Your task to perform on an android device: turn pop-ups off in chrome Image 0: 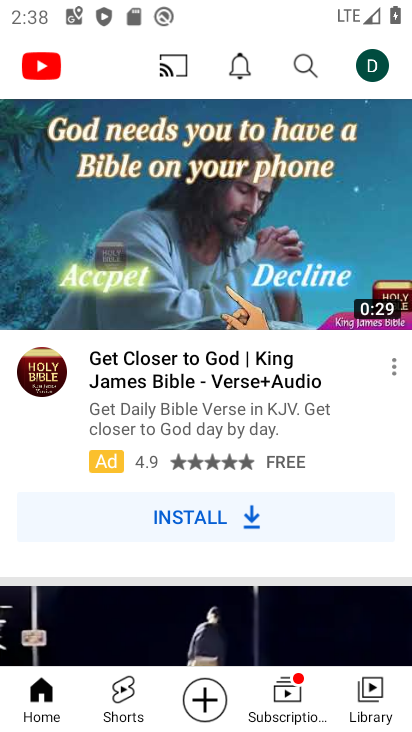
Step 0: press home button
Your task to perform on an android device: turn pop-ups off in chrome Image 1: 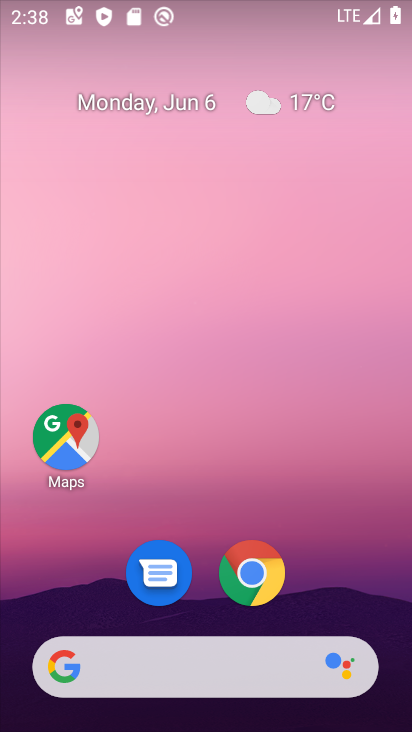
Step 1: drag from (344, 584) to (349, 119)
Your task to perform on an android device: turn pop-ups off in chrome Image 2: 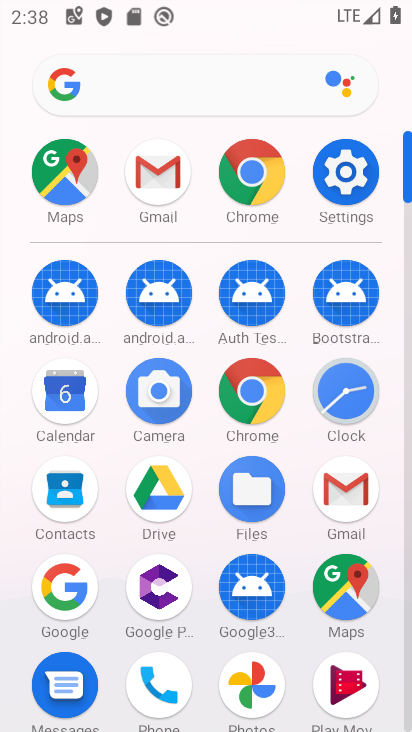
Step 2: click (261, 397)
Your task to perform on an android device: turn pop-ups off in chrome Image 3: 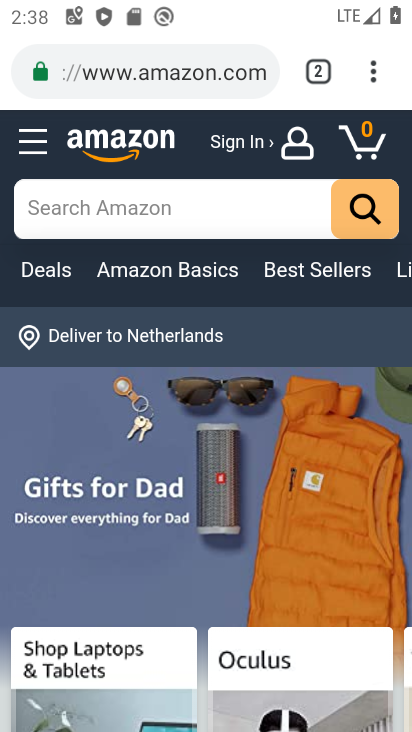
Step 3: click (373, 85)
Your task to perform on an android device: turn pop-ups off in chrome Image 4: 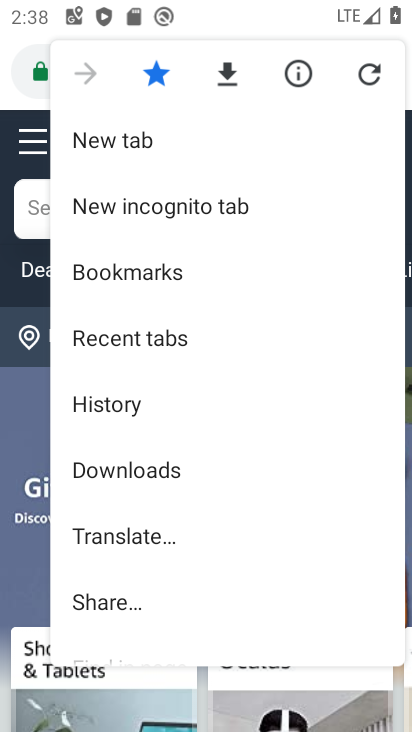
Step 4: drag from (355, 505) to (371, 310)
Your task to perform on an android device: turn pop-ups off in chrome Image 5: 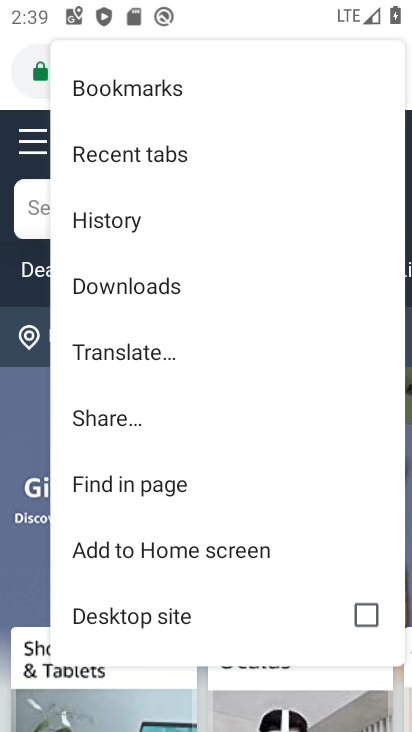
Step 5: drag from (313, 571) to (335, 308)
Your task to perform on an android device: turn pop-ups off in chrome Image 6: 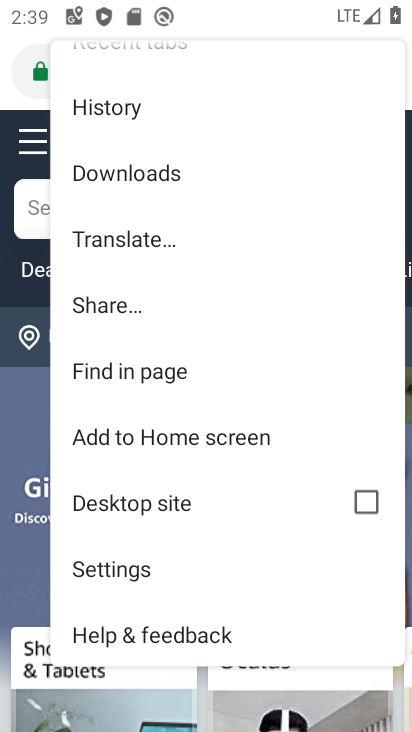
Step 6: click (182, 570)
Your task to perform on an android device: turn pop-ups off in chrome Image 7: 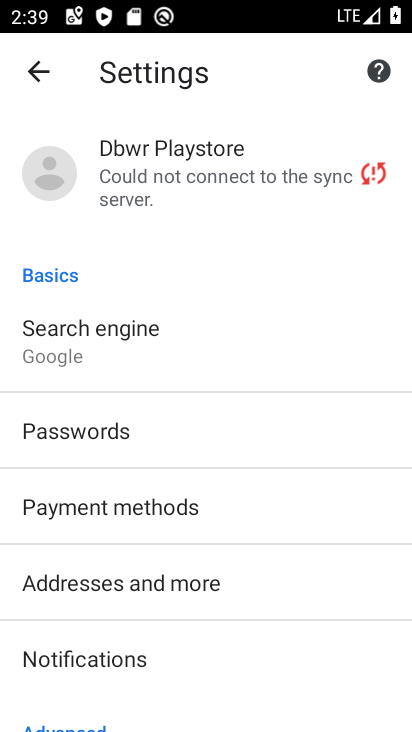
Step 7: drag from (308, 566) to (353, 423)
Your task to perform on an android device: turn pop-ups off in chrome Image 8: 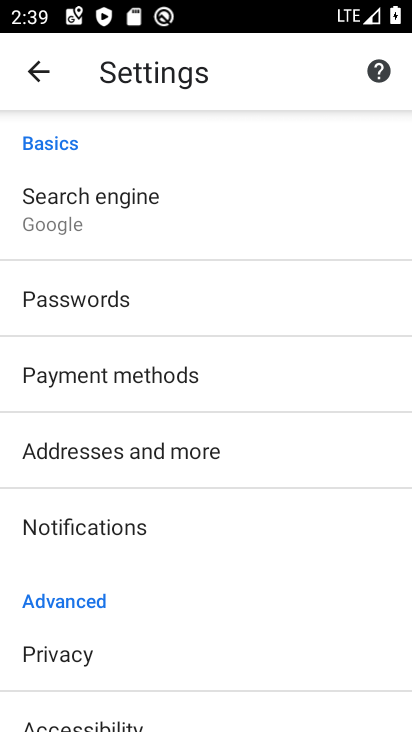
Step 8: drag from (340, 555) to (338, 406)
Your task to perform on an android device: turn pop-ups off in chrome Image 9: 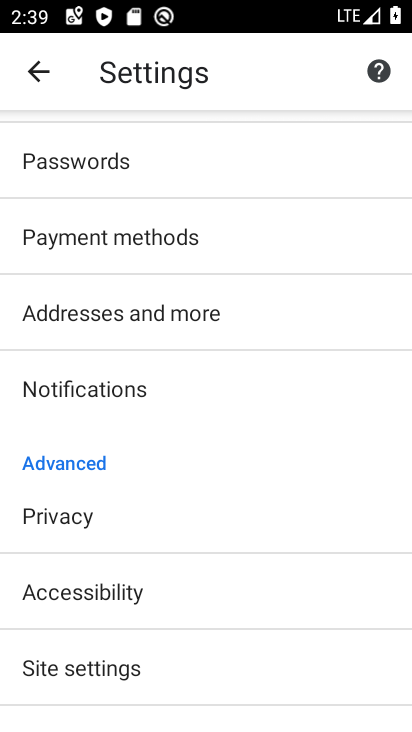
Step 9: drag from (290, 605) to (301, 374)
Your task to perform on an android device: turn pop-ups off in chrome Image 10: 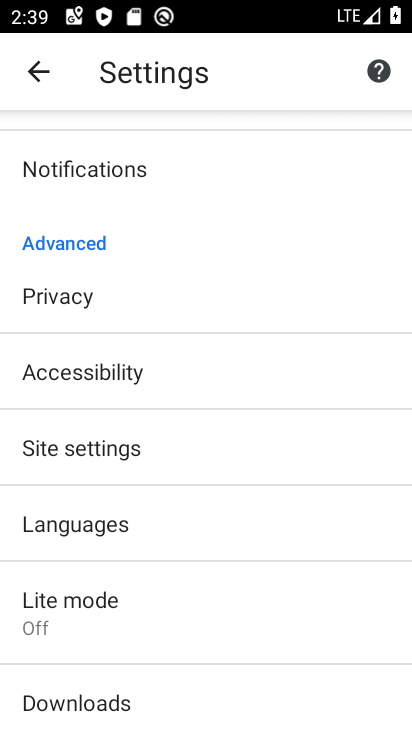
Step 10: click (272, 438)
Your task to perform on an android device: turn pop-ups off in chrome Image 11: 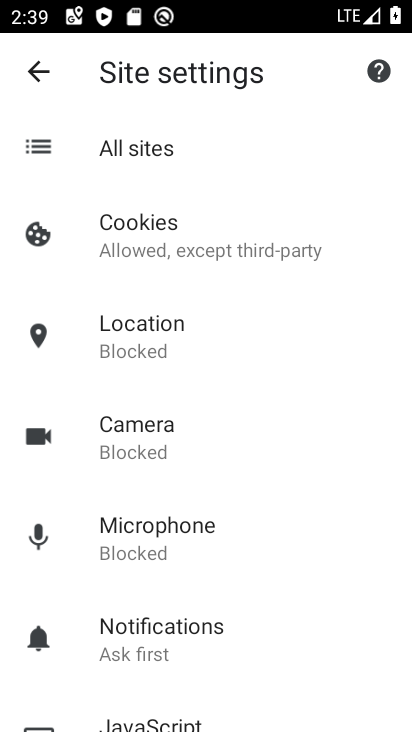
Step 11: drag from (311, 465) to (327, 335)
Your task to perform on an android device: turn pop-ups off in chrome Image 12: 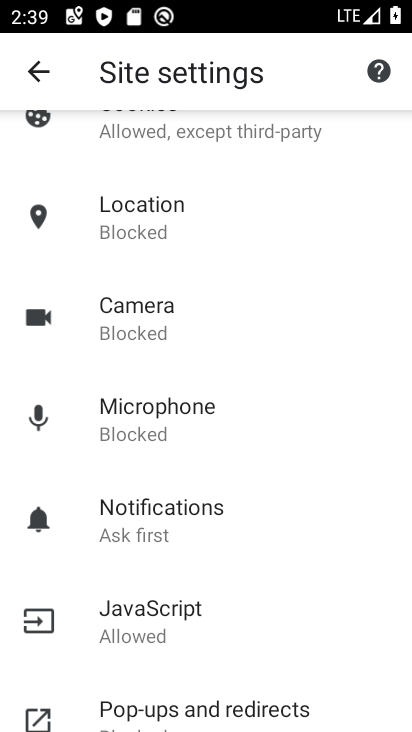
Step 12: drag from (348, 503) to (337, 318)
Your task to perform on an android device: turn pop-ups off in chrome Image 13: 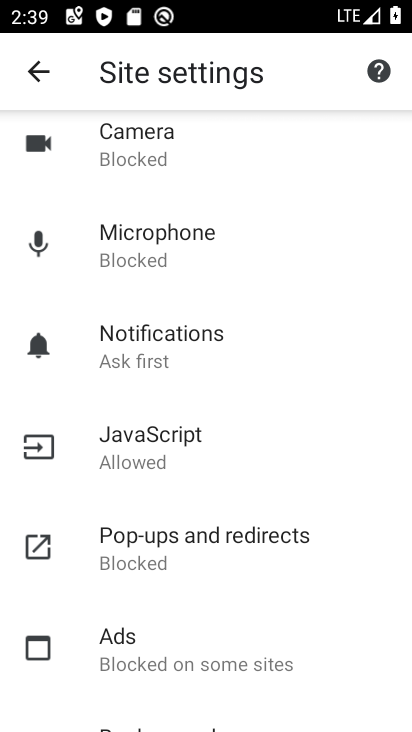
Step 13: click (273, 550)
Your task to perform on an android device: turn pop-ups off in chrome Image 14: 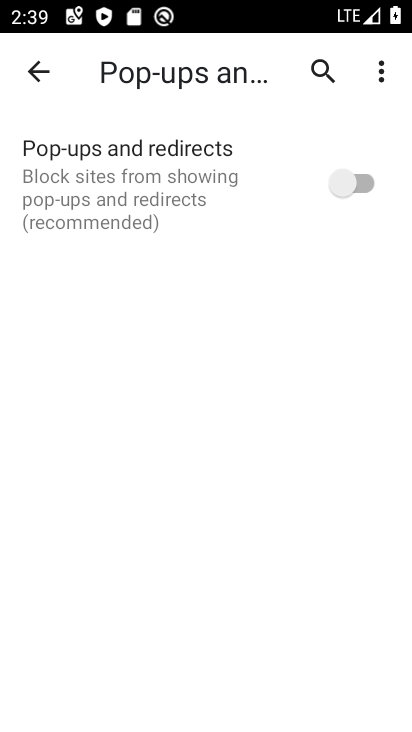
Step 14: task complete